Your task to perform on an android device: Open settings on Google Maps Image 0: 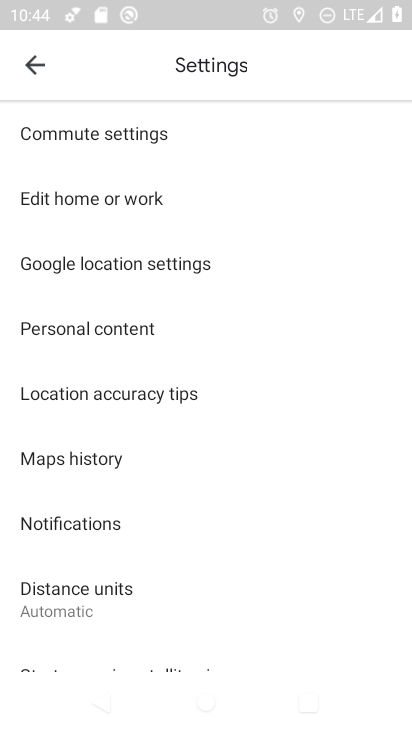
Step 0: task complete